Your task to perform on an android device: Go to Maps Image 0: 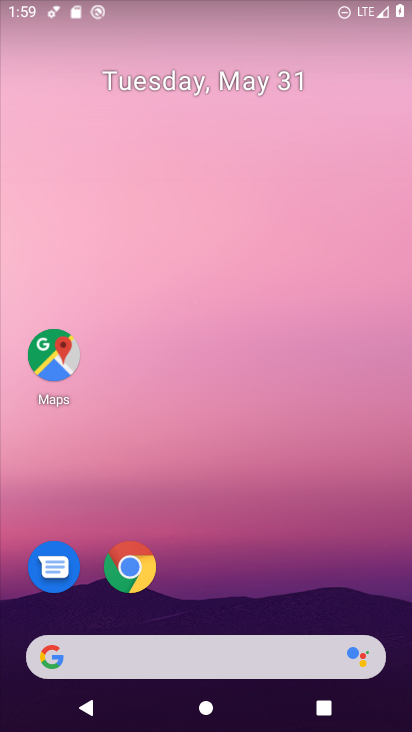
Step 0: click (40, 345)
Your task to perform on an android device: Go to Maps Image 1: 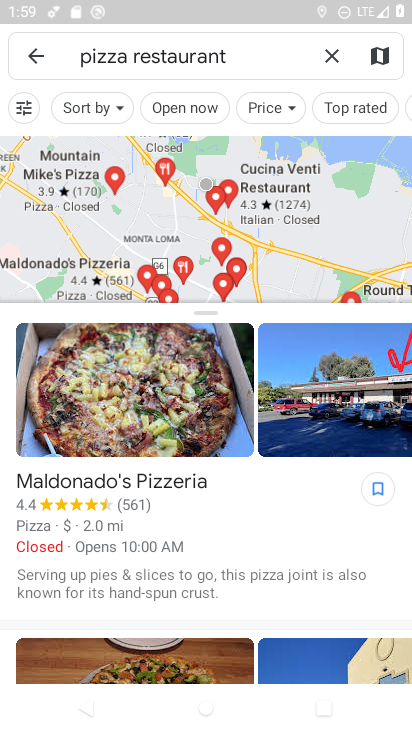
Step 1: task complete